Your task to perform on an android device: show emergency info Image 0: 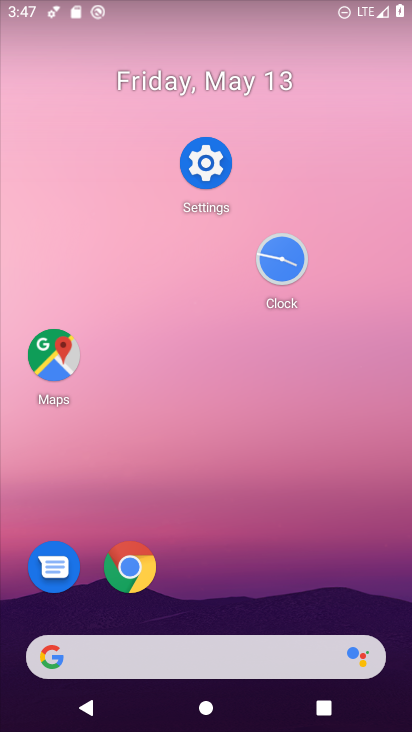
Step 0: click (179, 185)
Your task to perform on an android device: show emergency info Image 1: 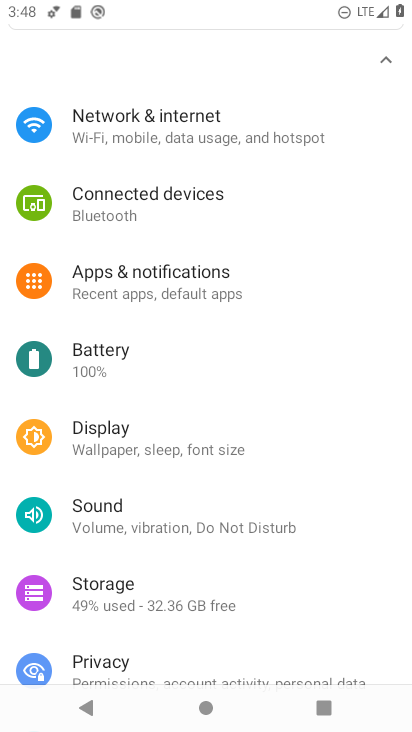
Step 1: drag from (192, 561) to (206, 216)
Your task to perform on an android device: show emergency info Image 2: 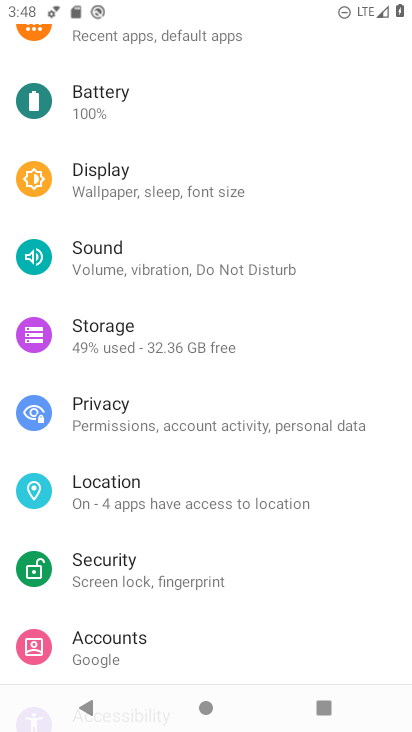
Step 2: drag from (233, 639) to (235, 306)
Your task to perform on an android device: show emergency info Image 3: 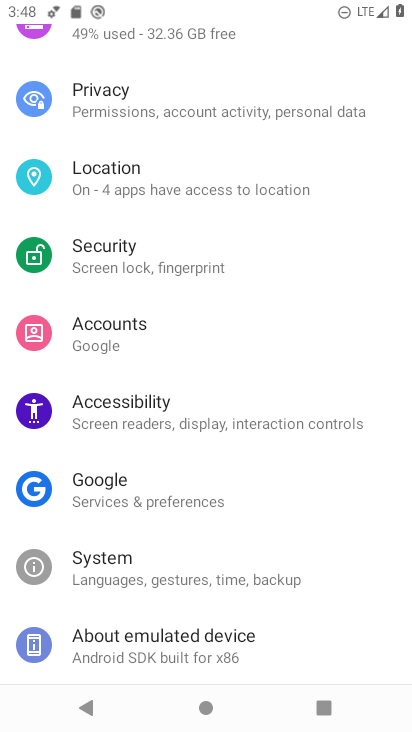
Step 3: click (220, 638)
Your task to perform on an android device: show emergency info Image 4: 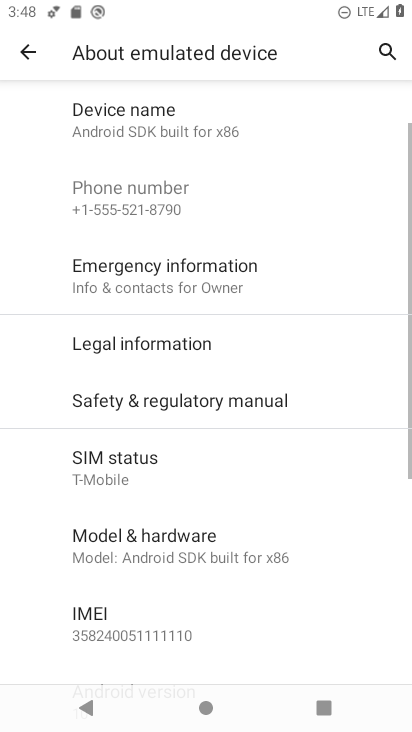
Step 4: click (215, 285)
Your task to perform on an android device: show emergency info Image 5: 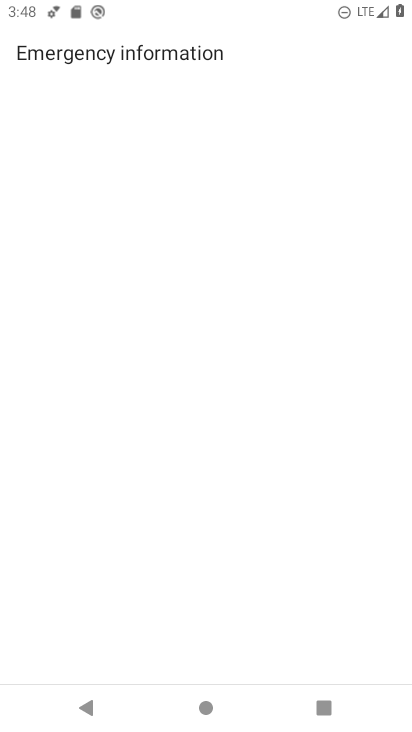
Step 5: task complete